Your task to perform on an android device: Search for Mexican restaurants on Maps Image 0: 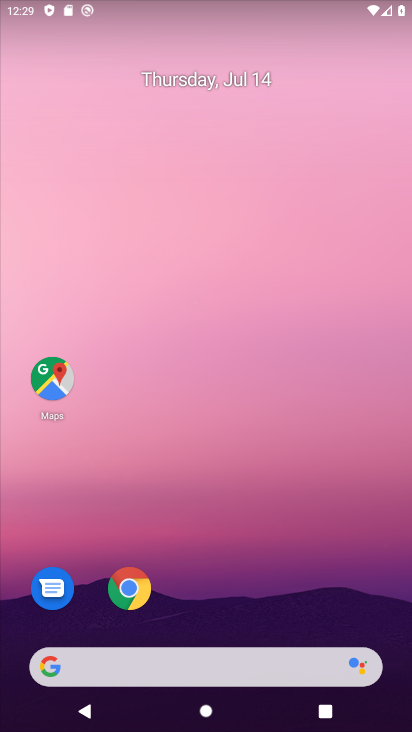
Step 0: drag from (190, 600) to (259, 234)
Your task to perform on an android device: Search for Mexican restaurants on Maps Image 1: 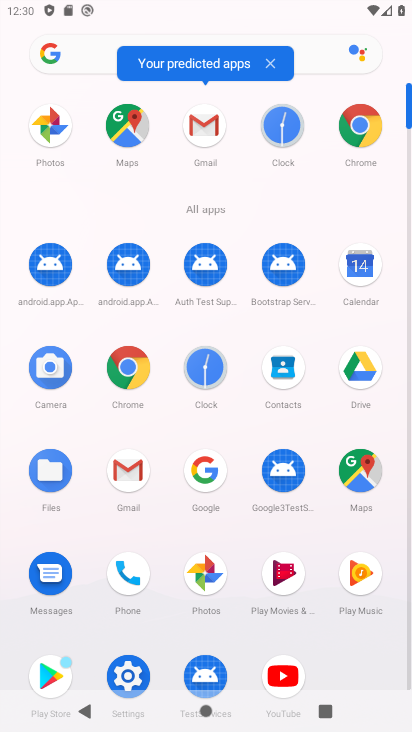
Step 1: click (355, 472)
Your task to perform on an android device: Search for Mexican restaurants on Maps Image 2: 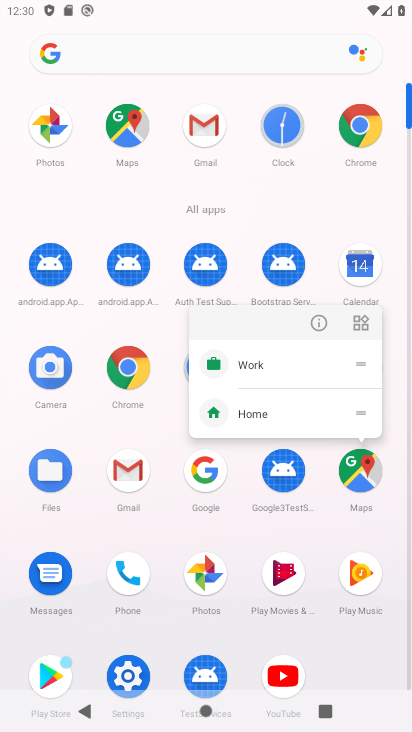
Step 2: click (355, 474)
Your task to perform on an android device: Search for Mexican restaurants on Maps Image 3: 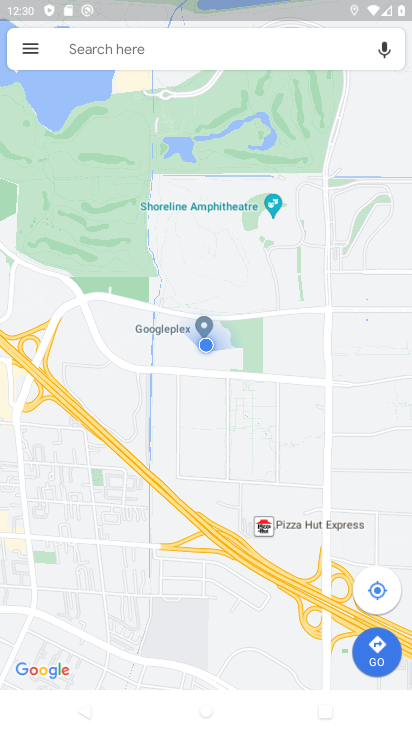
Step 3: click (188, 57)
Your task to perform on an android device: Search for Mexican restaurants on Maps Image 4: 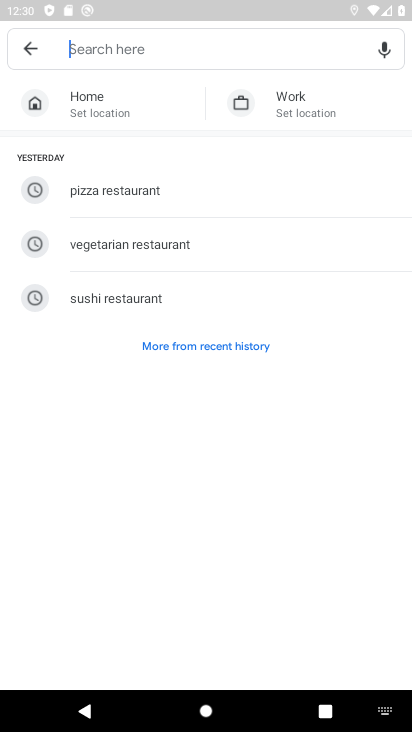
Step 4: type "Mexican restaurants"
Your task to perform on an android device: Search for Mexican restaurants on Maps Image 5: 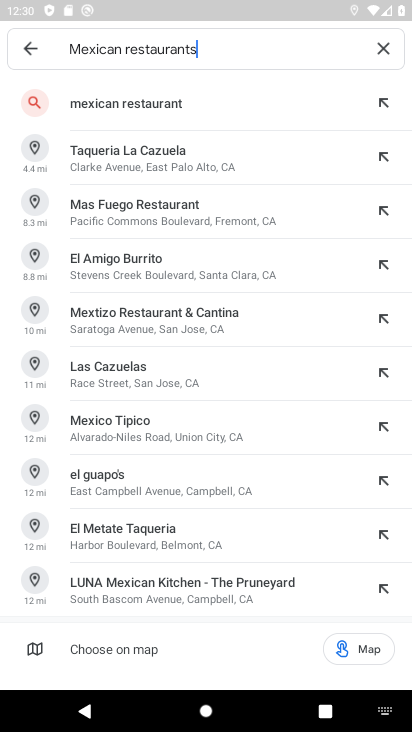
Step 5: click (192, 121)
Your task to perform on an android device: Search for Mexican restaurants on Maps Image 6: 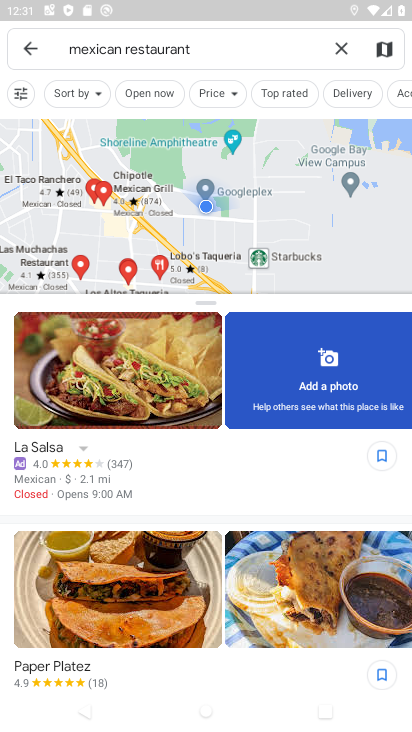
Step 6: task complete